Your task to perform on an android device: turn on wifi Image 0: 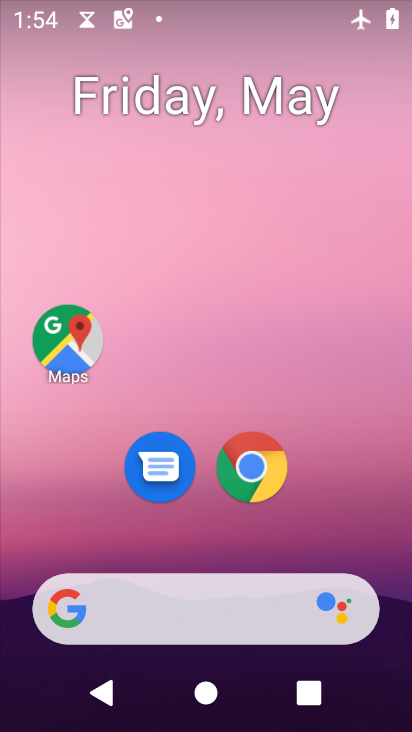
Step 0: drag from (324, 511) to (324, 58)
Your task to perform on an android device: turn on wifi Image 1: 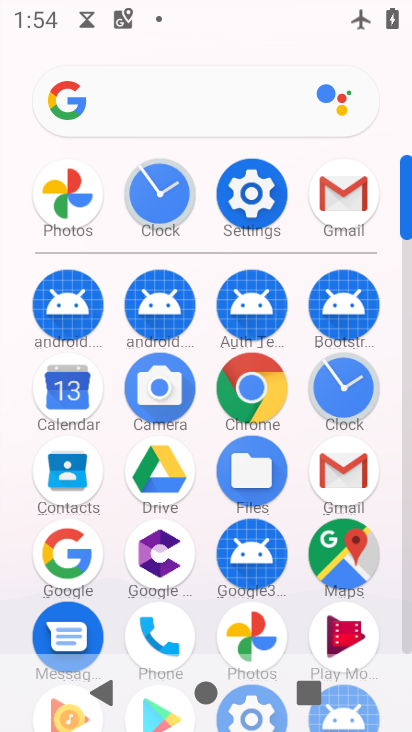
Step 1: click (249, 192)
Your task to perform on an android device: turn on wifi Image 2: 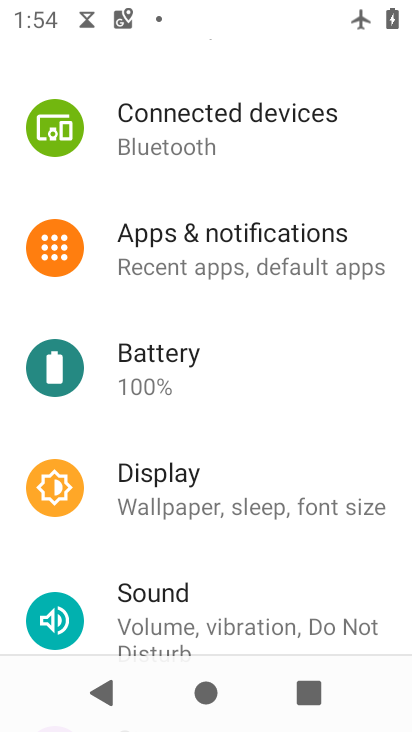
Step 2: drag from (248, 165) to (278, 297)
Your task to perform on an android device: turn on wifi Image 3: 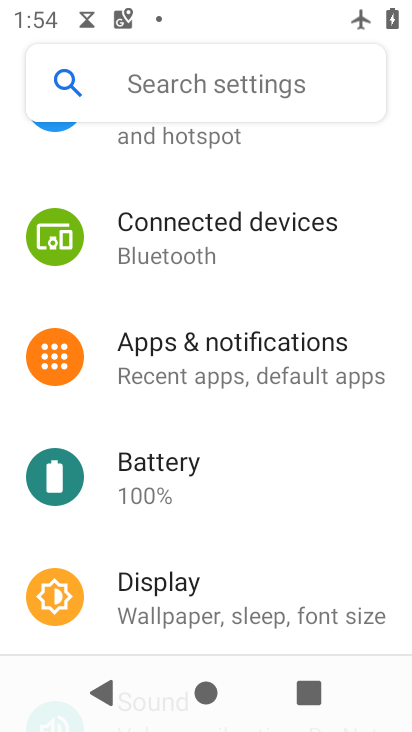
Step 3: drag from (286, 174) to (236, 407)
Your task to perform on an android device: turn on wifi Image 4: 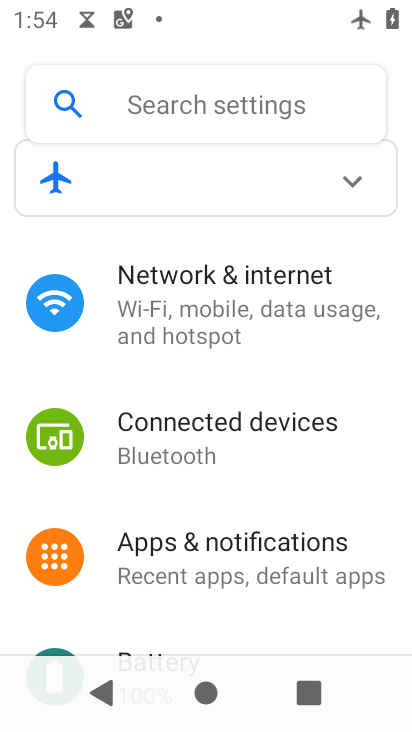
Step 4: click (253, 267)
Your task to perform on an android device: turn on wifi Image 5: 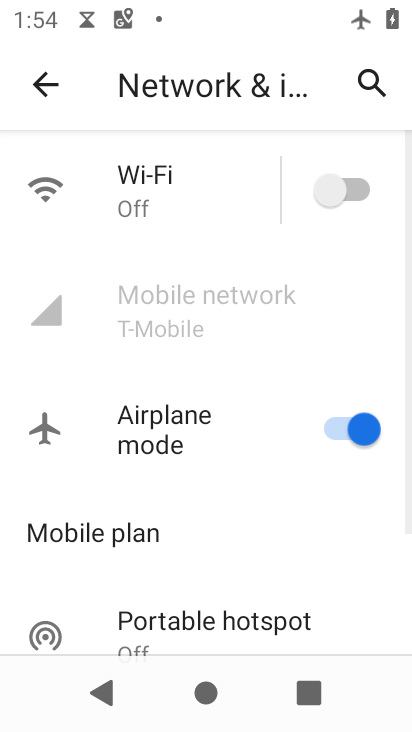
Step 5: click (329, 191)
Your task to perform on an android device: turn on wifi Image 6: 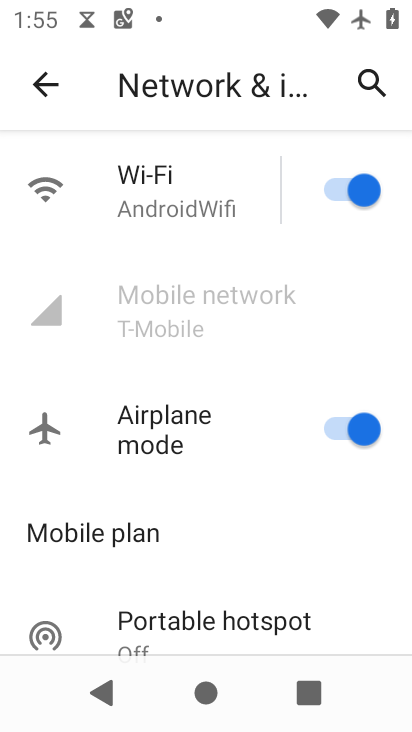
Step 6: task complete